Your task to perform on an android device: Open display settings Image 0: 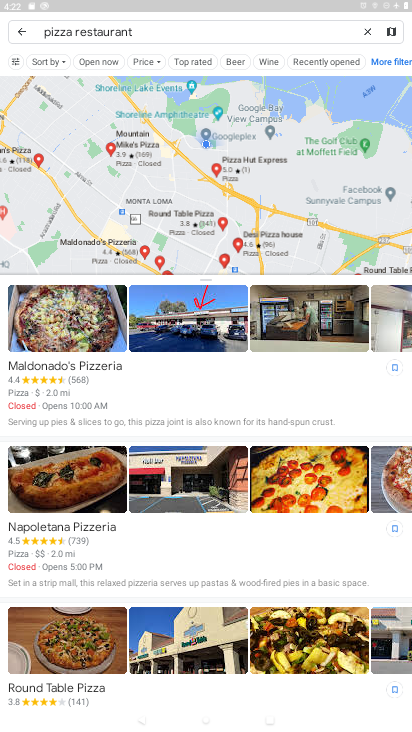
Step 0: press home button
Your task to perform on an android device: Open display settings Image 1: 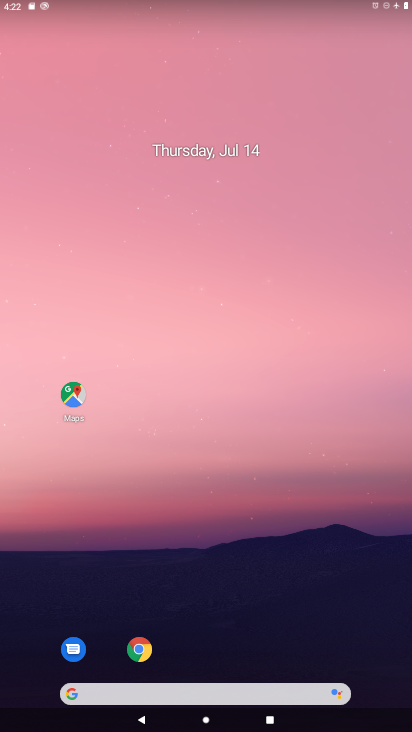
Step 1: drag from (227, 498) to (394, 19)
Your task to perform on an android device: Open display settings Image 2: 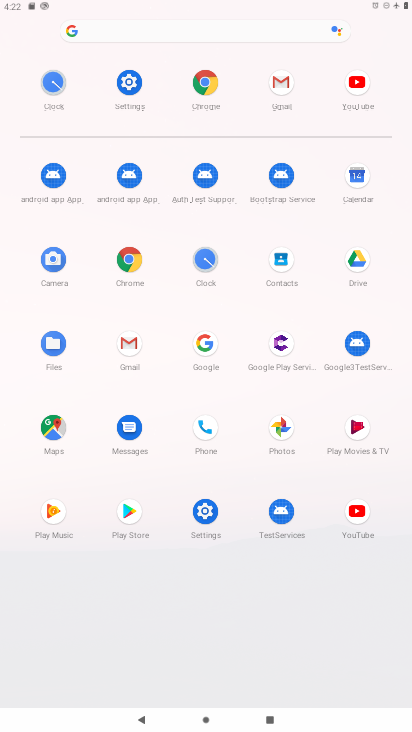
Step 2: click (214, 524)
Your task to perform on an android device: Open display settings Image 3: 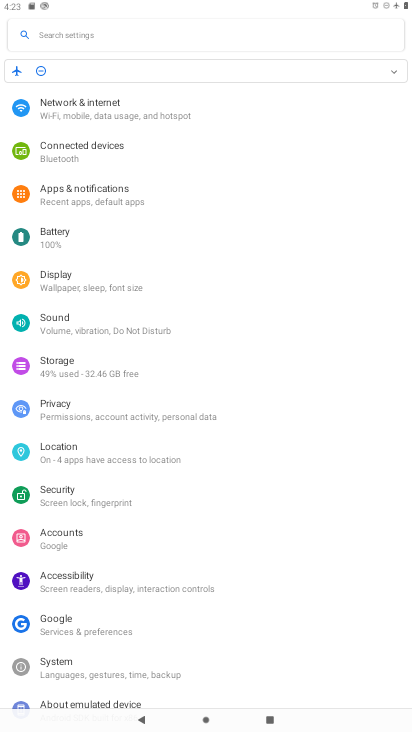
Step 3: click (101, 289)
Your task to perform on an android device: Open display settings Image 4: 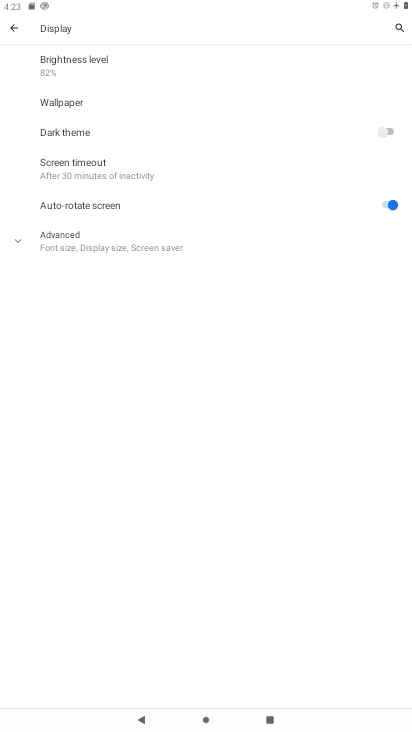
Step 4: task complete